Your task to perform on an android device: open chrome privacy settings Image 0: 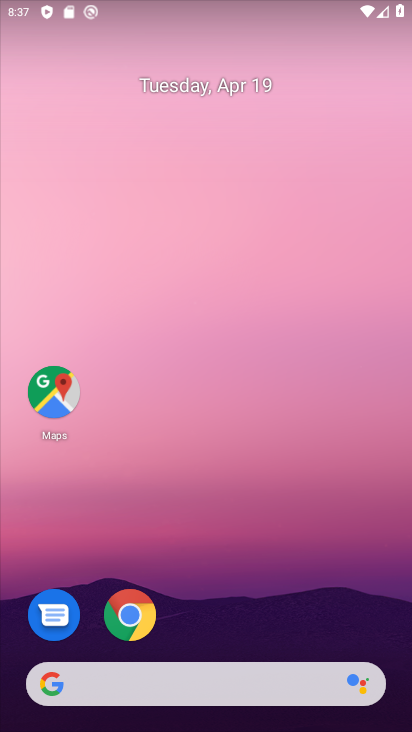
Step 0: drag from (269, 479) to (269, 181)
Your task to perform on an android device: open chrome privacy settings Image 1: 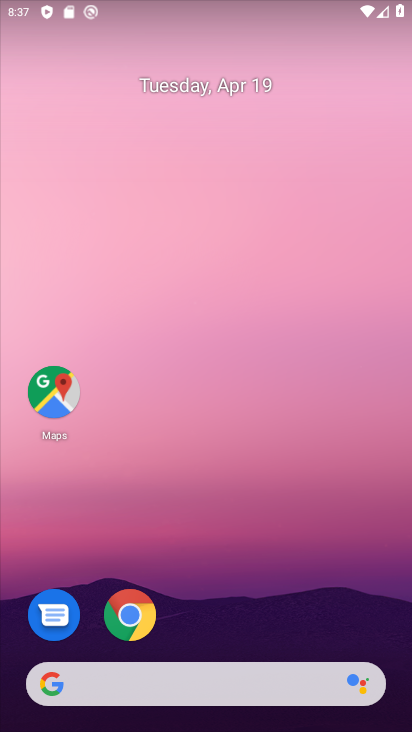
Step 1: drag from (192, 633) to (231, 166)
Your task to perform on an android device: open chrome privacy settings Image 2: 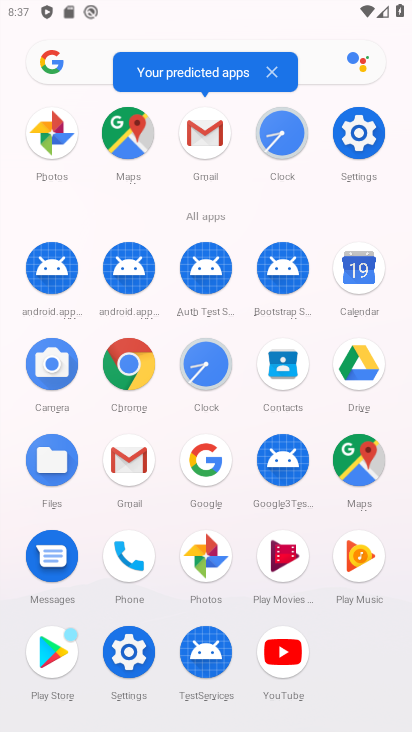
Step 2: click (354, 131)
Your task to perform on an android device: open chrome privacy settings Image 3: 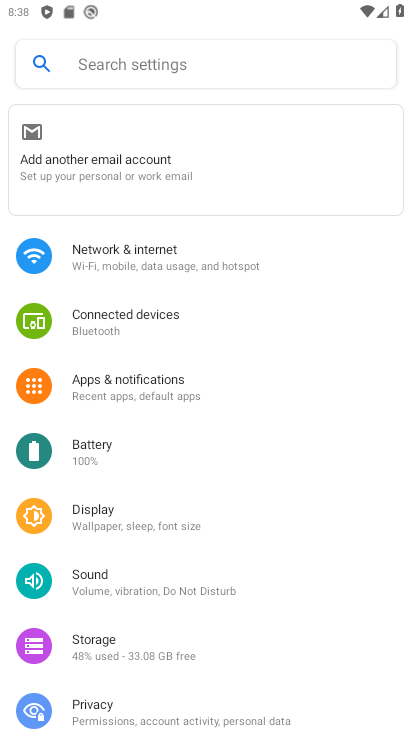
Step 3: click (124, 714)
Your task to perform on an android device: open chrome privacy settings Image 4: 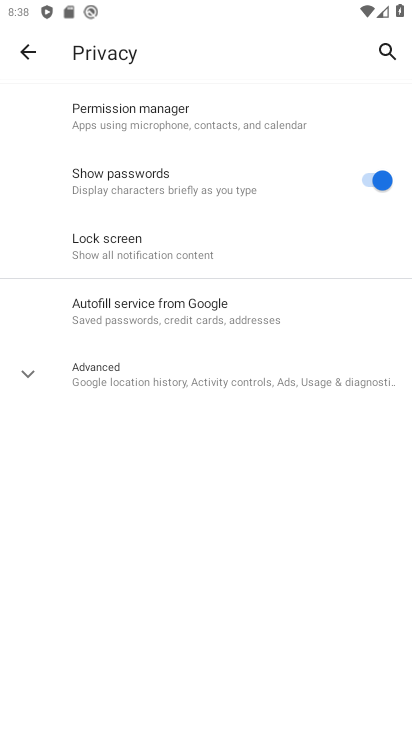
Step 4: click (176, 390)
Your task to perform on an android device: open chrome privacy settings Image 5: 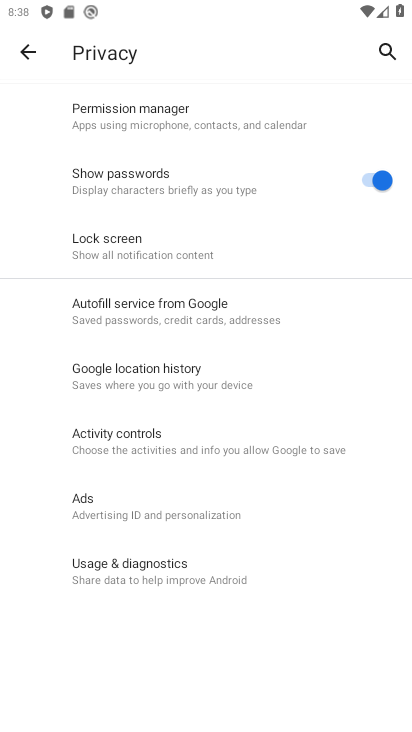
Step 5: task complete